Your task to perform on an android device: Go to internet settings Image 0: 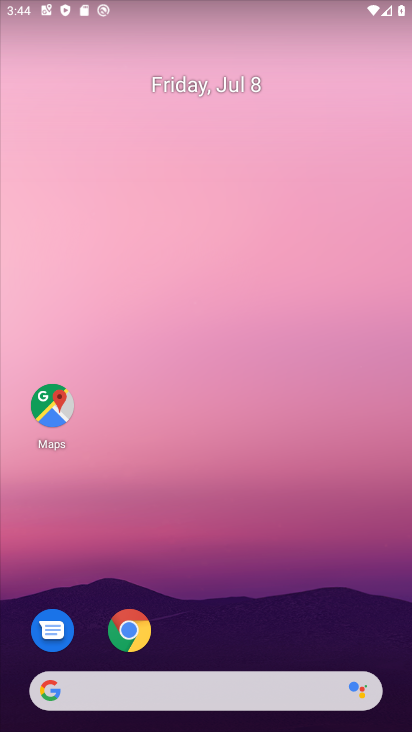
Step 0: drag from (289, 648) to (276, 357)
Your task to perform on an android device: Go to internet settings Image 1: 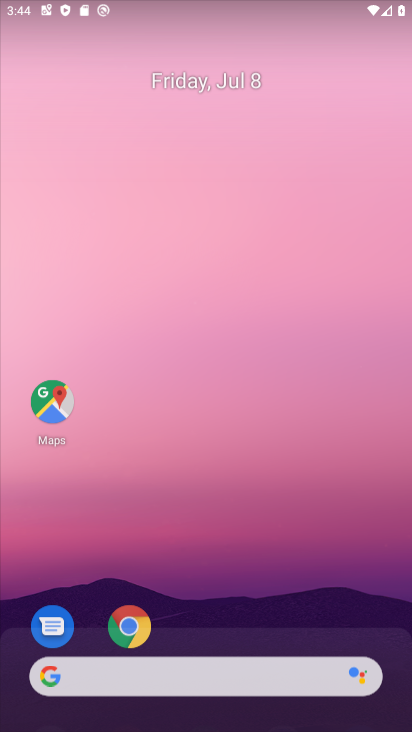
Step 1: click (276, 57)
Your task to perform on an android device: Go to internet settings Image 2: 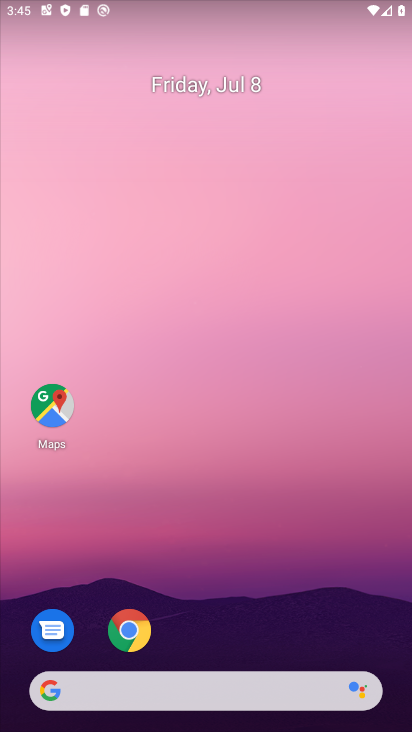
Step 2: drag from (212, 610) to (262, 32)
Your task to perform on an android device: Go to internet settings Image 3: 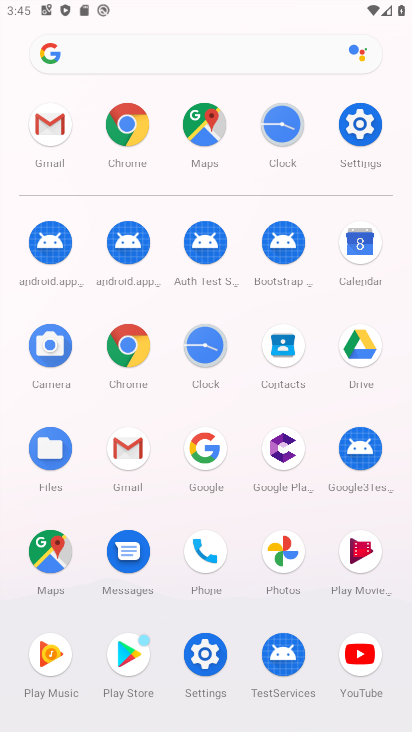
Step 3: click (371, 117)
Your task to perform on an android device: Go to internet settings Image 4: 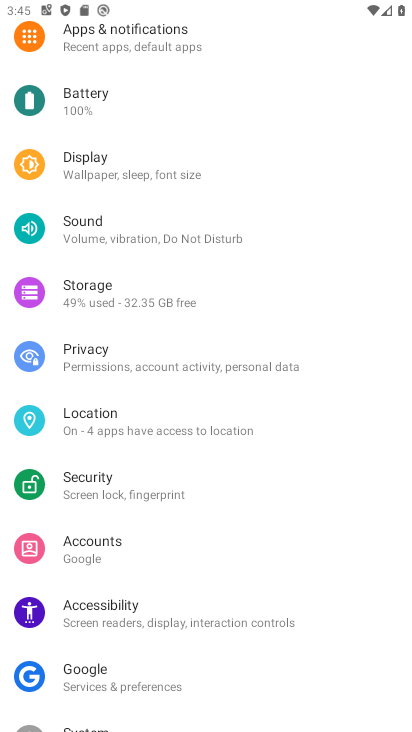
Step 4: drag from (165, 479) to (179, 320)
Your task to perform on an android device: Go to internet settings Image 5: 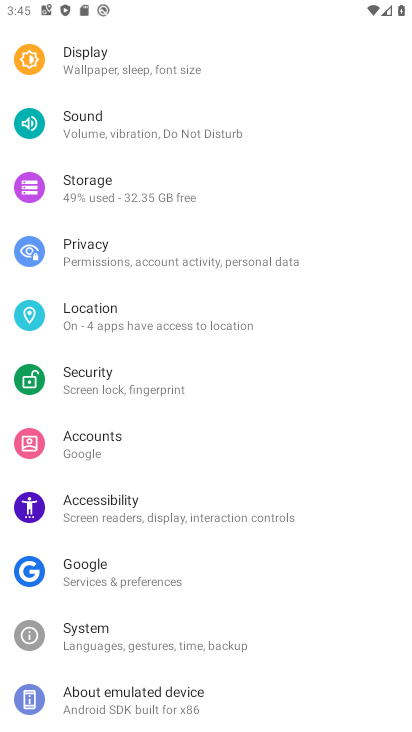
Step 5: drag from (204, 233) to (207, 550)
Your task to perform on an android device: Go to internet settings Image 6: 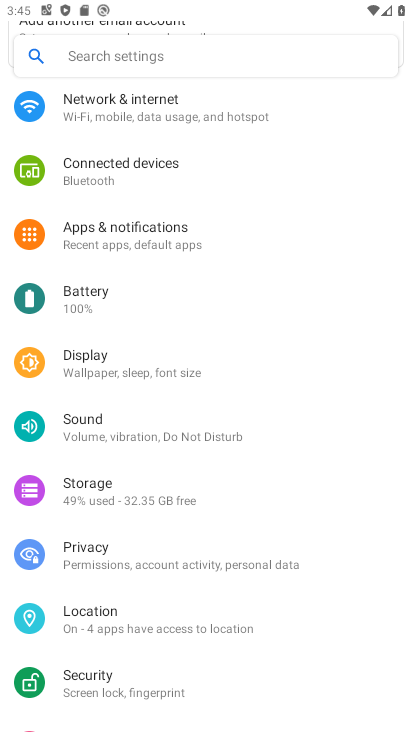
Step 6: drag from (172, 228) to (178, 688)
Your task to perform on an android device: Go to internet settings Image 7: 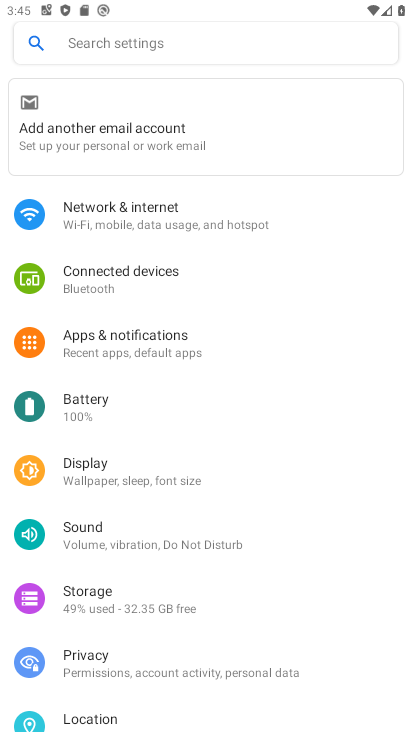
Step 7: click (211, 240)
Your task to perform on an android device: Go to internet settings Image 8: 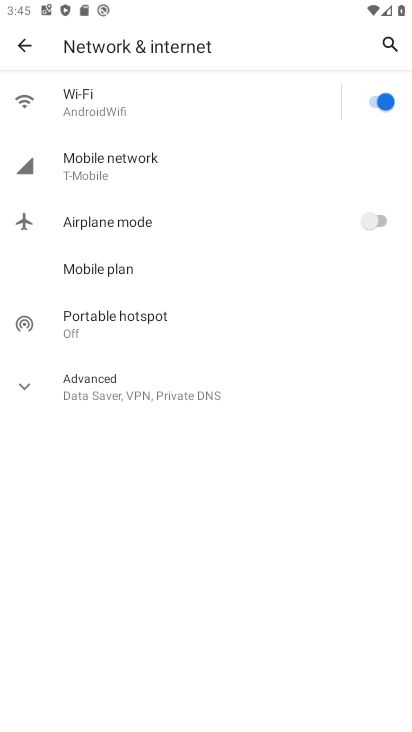
Step 8: task complete